Your task to perform on an android device: Show me recent news Image 0: 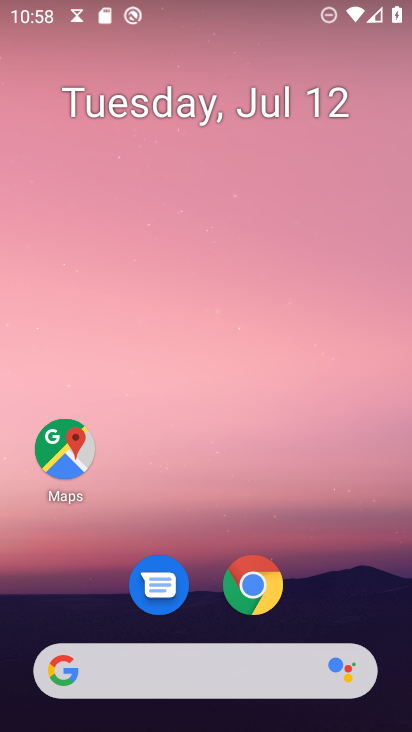
Step 0: click (169, 677)
Your task to perform on an android device: Show me recent news Image 1: 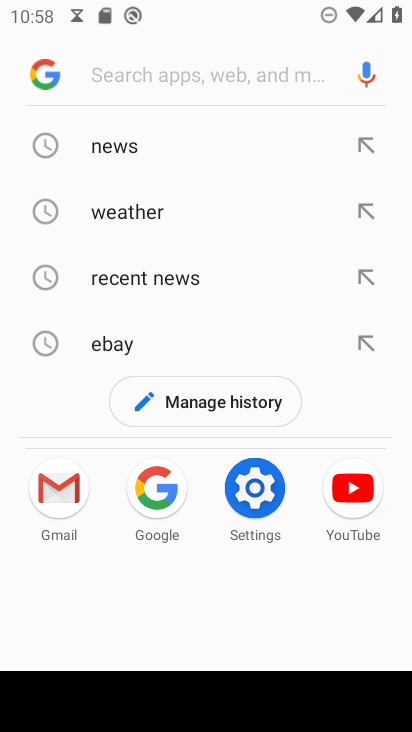
Step 1: click (154, 287)
Your task to perform on an android device: Show me recent news Image 2: 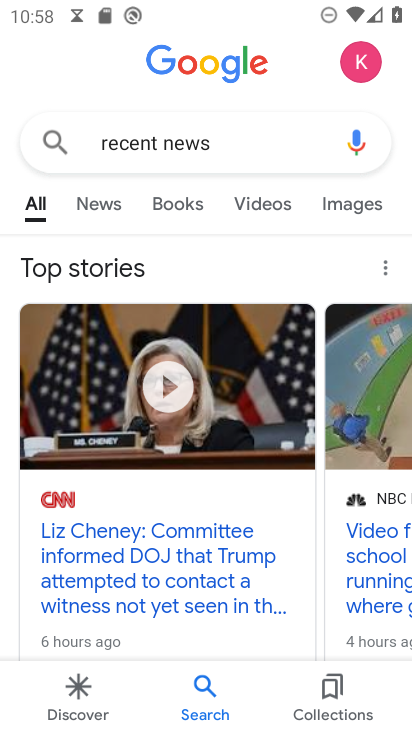
Step 2: click (104, 195)
Your task to perform on an android device: Show me recent news Image 3: 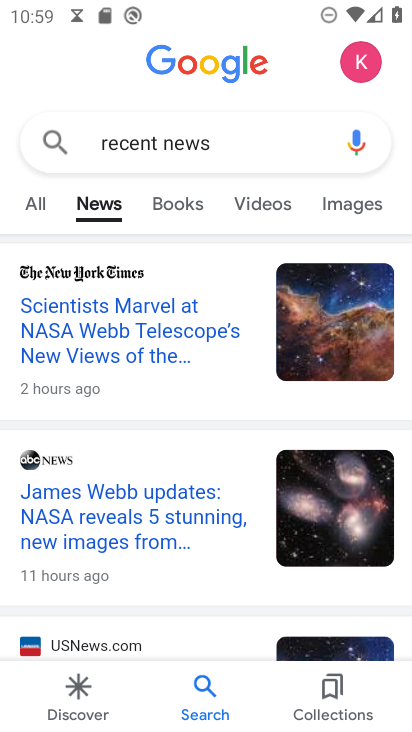
Step 3: task complete